Your task to perform on an android device: Search for vegetarian restaurants on Maps Image 0: 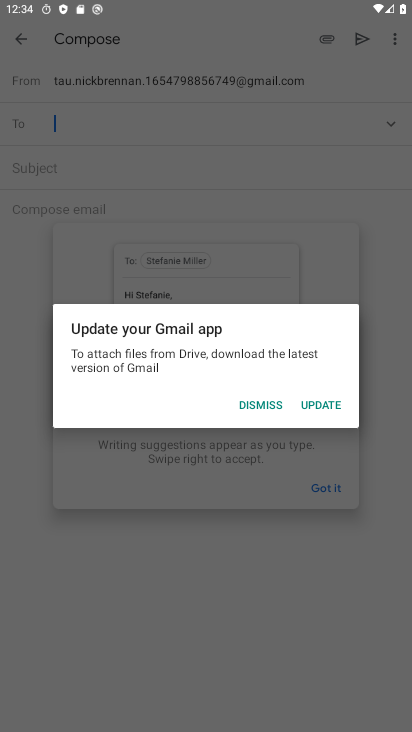
Step 0: press home button
Your task to perform on an android device: Search for vegetarian restaurants on Maps Image 1: 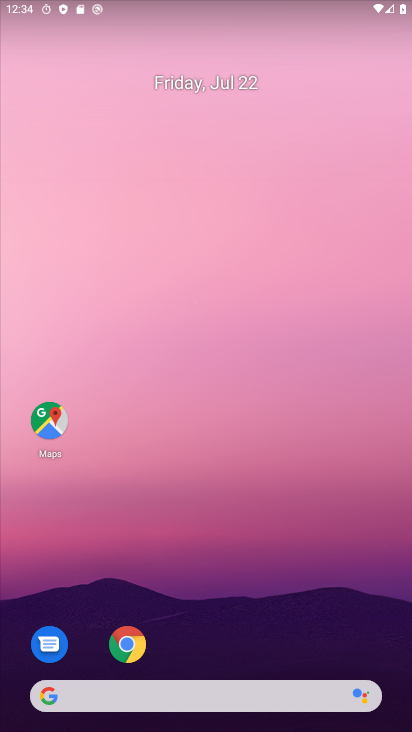
Step 1: drag from (213, 710) to (186, 288)
Your task to perform on an android device: Search for vegetarian restaurants on Maps Image 2: 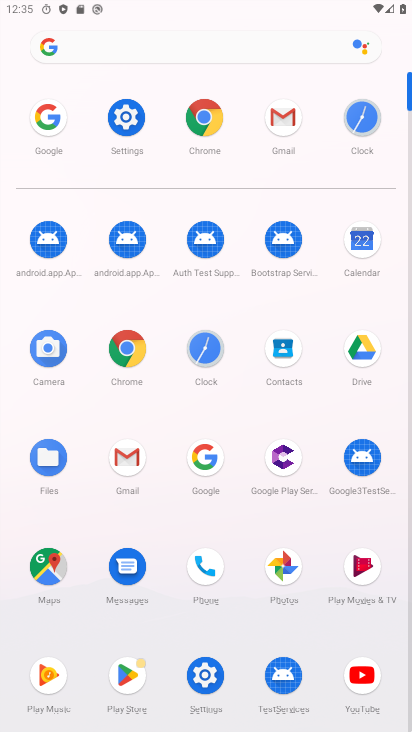
Step 2: click (54, 579)
Your task to perform on an android device: Search for vegetarian restaurants on Maps Image 3: 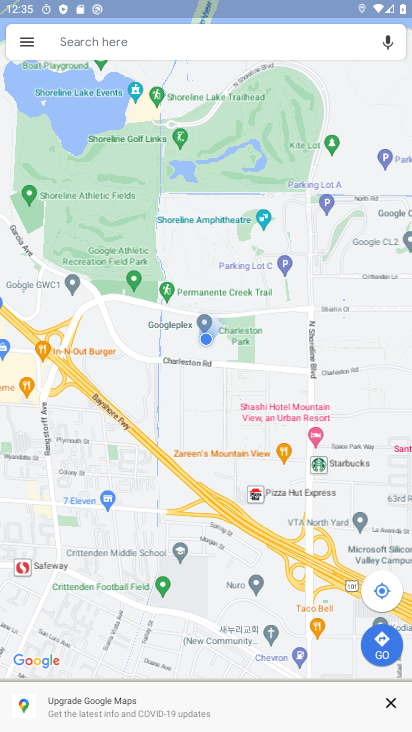
Step 3: click (293, 54)
Your task to perform on an android device: Search for vegetarian restaurants on Maps Image 4: 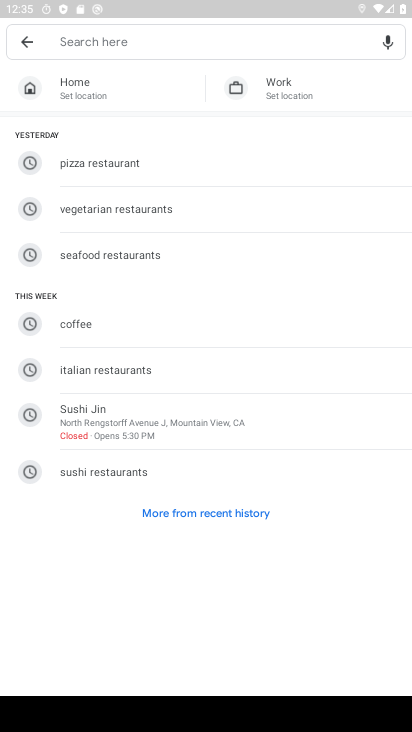
Step 4: click (135, 211)
Your task to perform on an android device: Search for vegetarian restaurants on Maps Image 5: 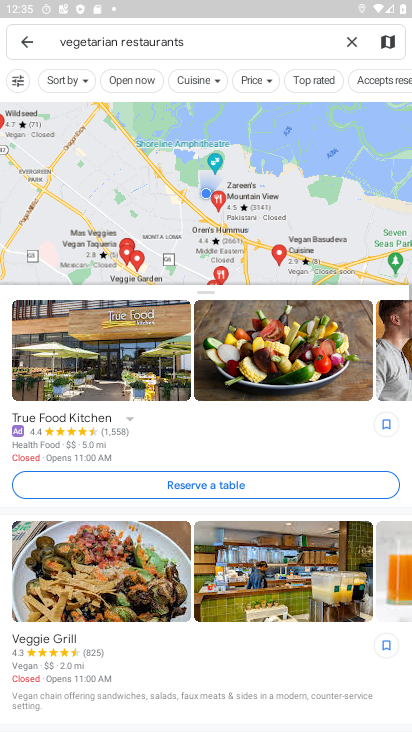
Step 5: task complete